Your task to perform on an android device: turn off improve location accuracy Image 0: 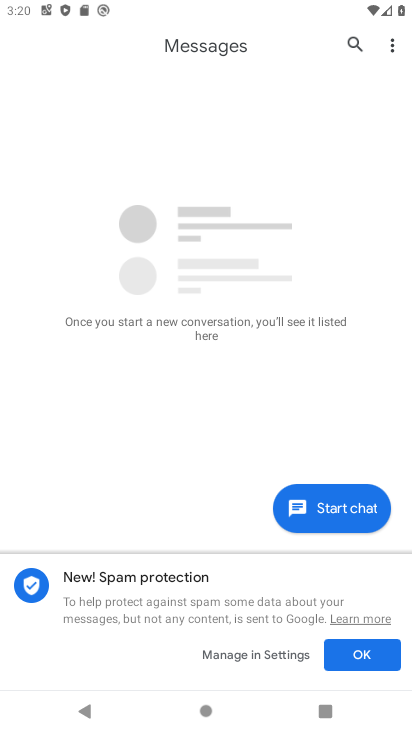
Step 0: press home button
Your task to perform on an android device: turn off improve location accuracy Image 1: 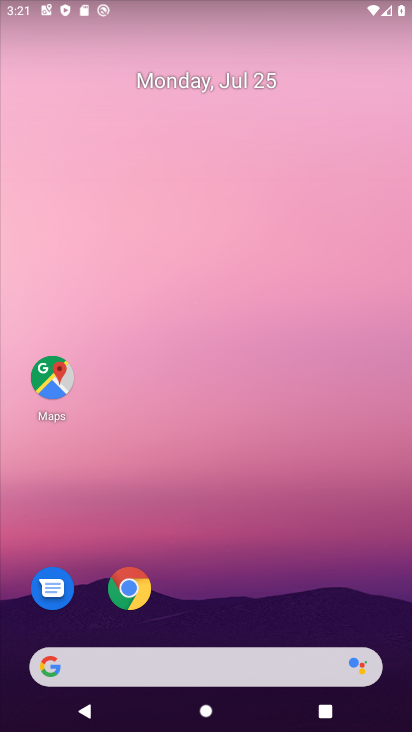
Step 1: drag from (315, 561) to (276, 29)
Your task to perform on an android device: turn off improve location accuracy Image 2: 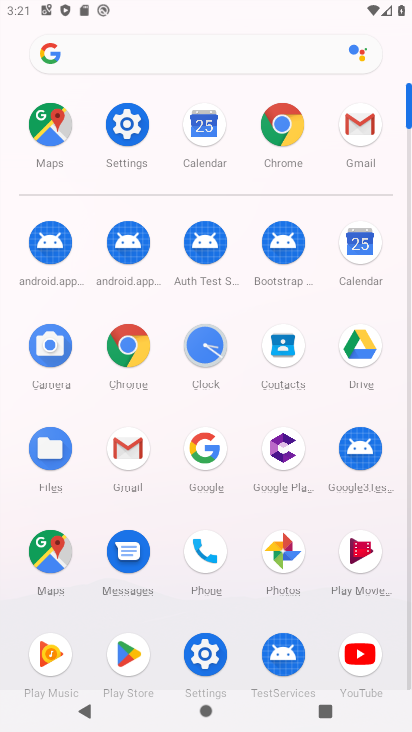
Step 2: click (143, 129)
Your task to perform on an android device: turn off improve location accuracy Image 3: 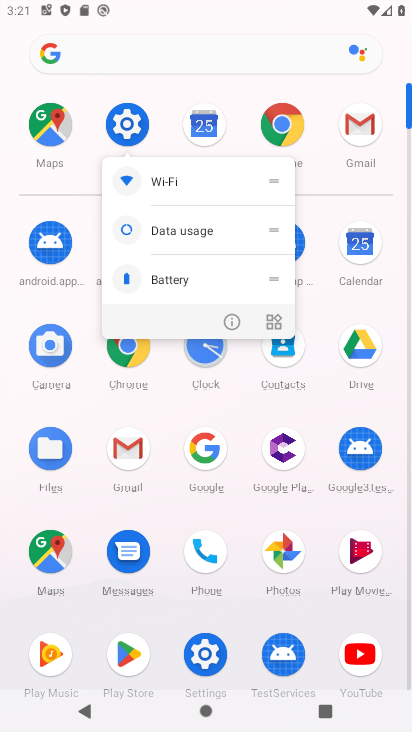
Step 3: click (138, 126)
Your task to perform on an android device: turn off improve location accuracy Image 4: 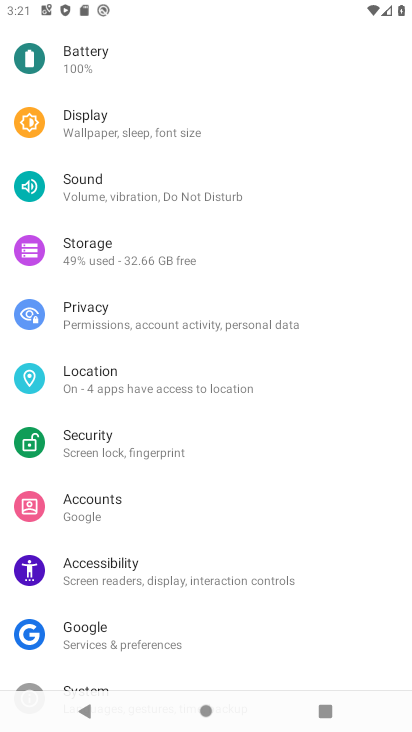
Step 4: click (88, 381)
Your task to perform on an android device: turn off improve location accuracy Image 5: 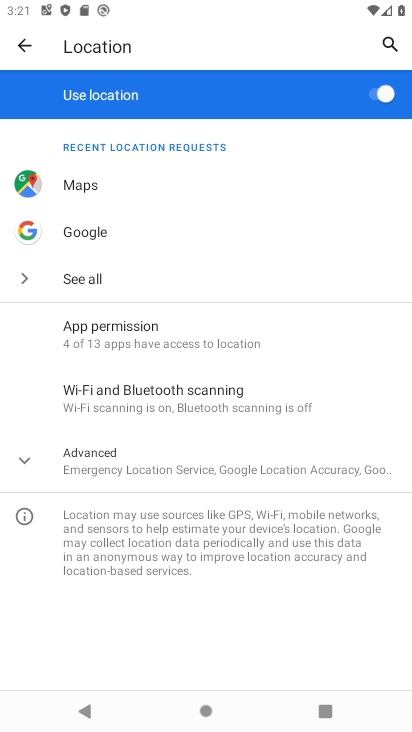
Step 5: click (165, 462)
Your task to perform on an android device: turn off improve location accuracy Image 6: 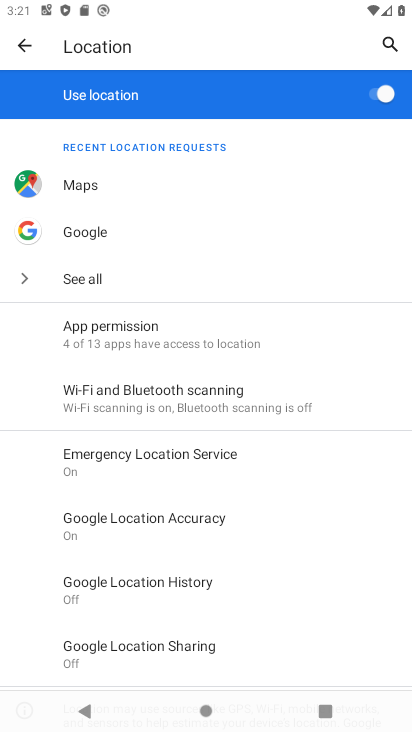
Step 6: click (172, 531)
Your task to perform on an android device: turn off improve location accuracy Image 7: 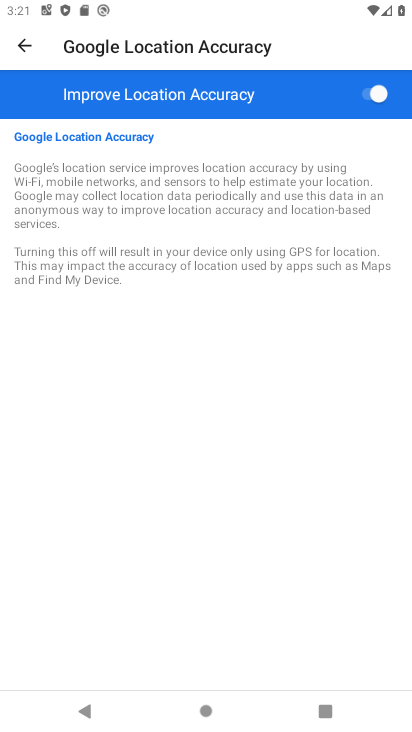
Step 7: click (380, 97)
Your task to perform on an android device: turn off improve location accuracy Image 8: 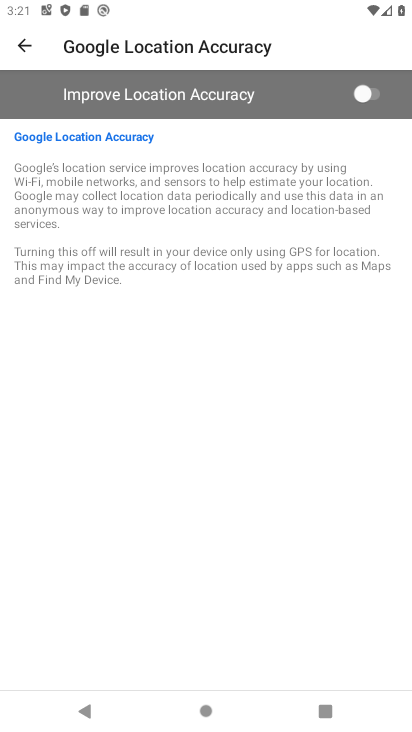
Step 8: task complete